Your task to perform on an android device: turn off priority inbox in the gmail app Image 0: 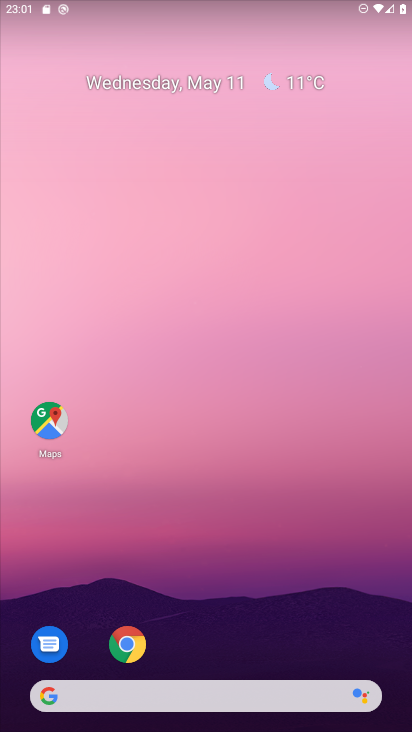
Step 0: click (411, 663)
Your task to perform on an android device: turn off priority inbox in the gmail app Image 1: 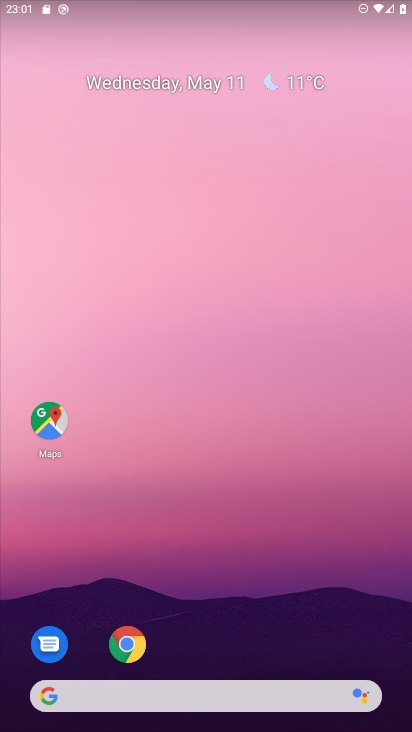
Step 1: click (389, 616)
Your task to perform on an android device: turn off priority inbox in the gmail app Image 2: 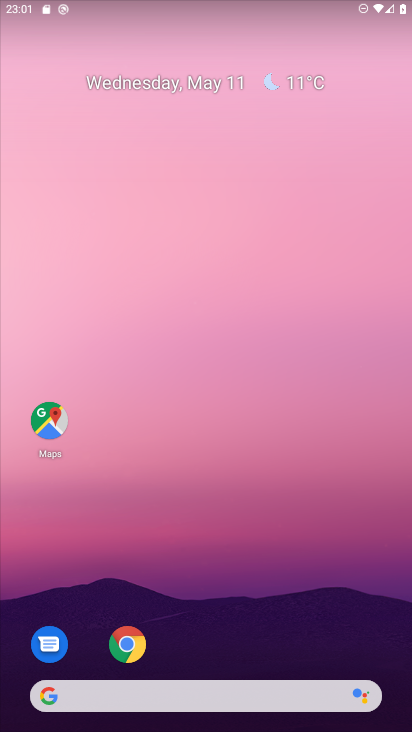
Step 2: drag from (389, 616) to (218, 0)
Your task to perform on an android device: turn off priority inbox in the gmail app Image 3: 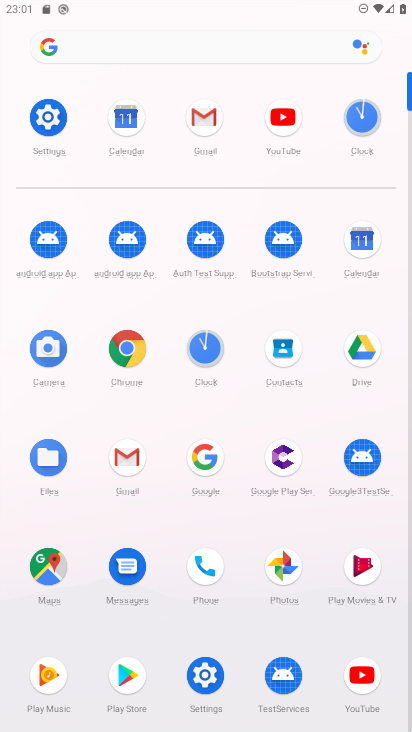
Step 3: click (204, 121)
Your task to perform on an android device: turn off priority inbox in the gmail app Image 4: 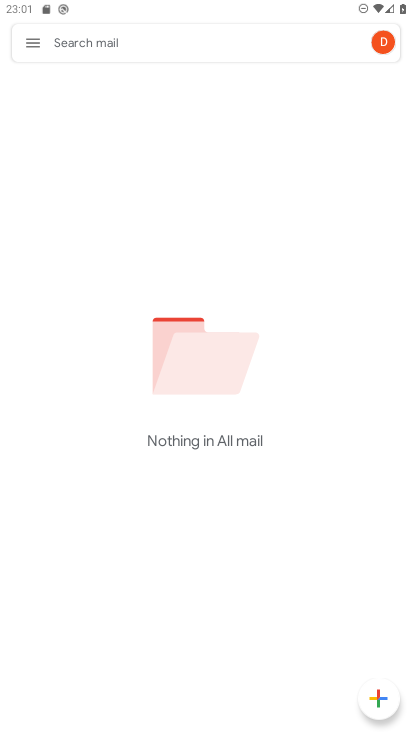
Step 4: click (38, 44)
Your task to perform on an android device: turn off priority inbox in the gmail app Image 5: 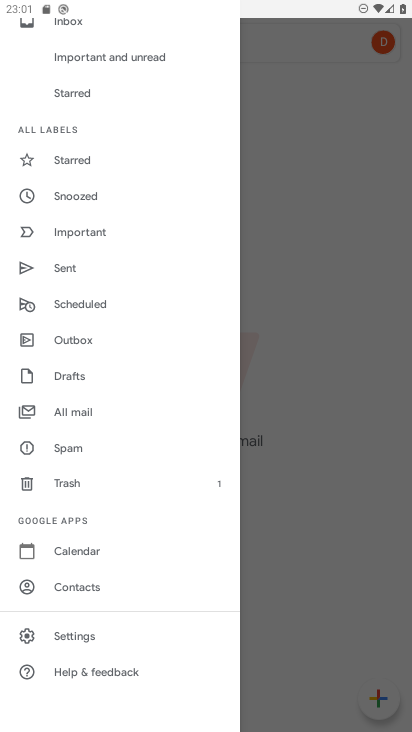
Step 5: click (71, 635)
Your task to perform on an android device: turn off priority inbox in the gmail app Image 6: 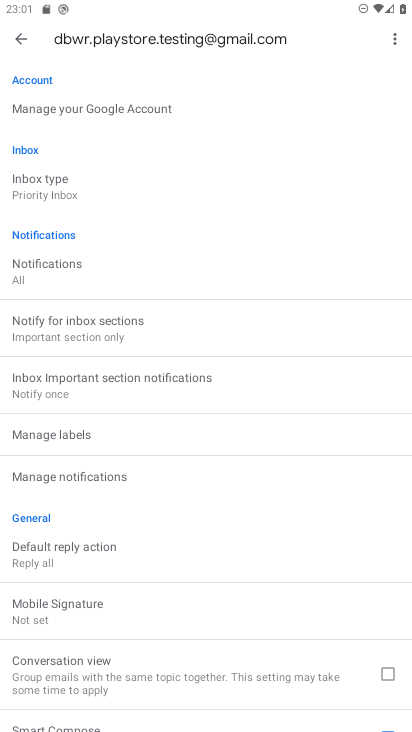
Step 6: click (38, 183)
Your task to perform on an android device: turn off priority inbox in the gmail app Image 7: 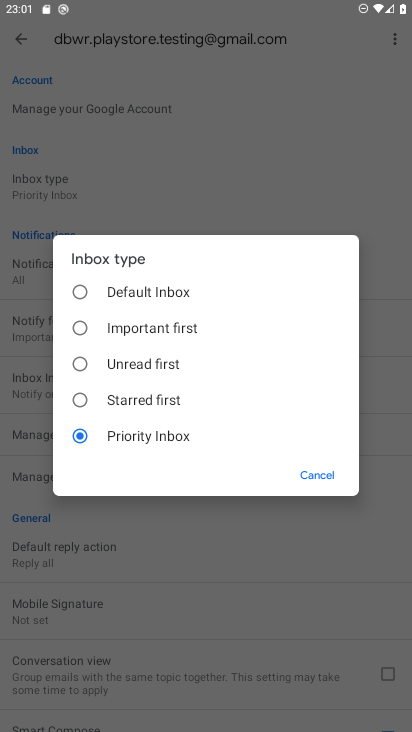
Step 7: click (80, 286)
Your task to perform on an android device: turn off priority inbox in the gmail app Image 8: 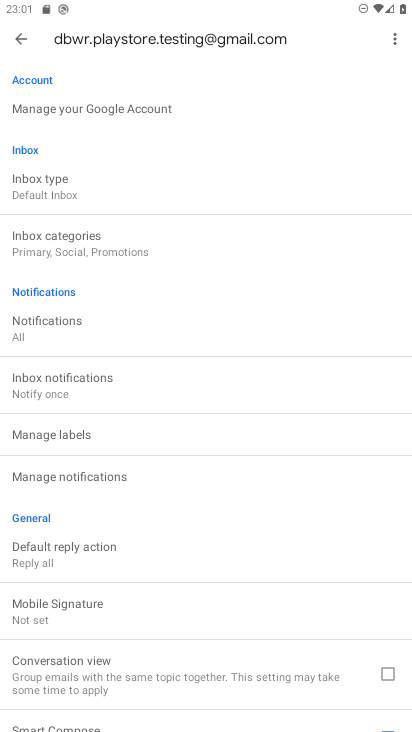
Step 8: task complete